Your task to perform on an android device: Open calendar and show me the first week of next month Image 0: 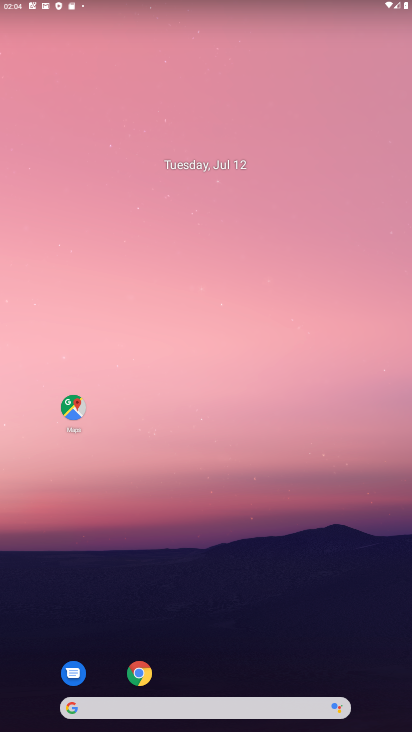
Step 0: press home button
Your task to perform on an android device: Open calendar and show me the first week of next month Image 1: 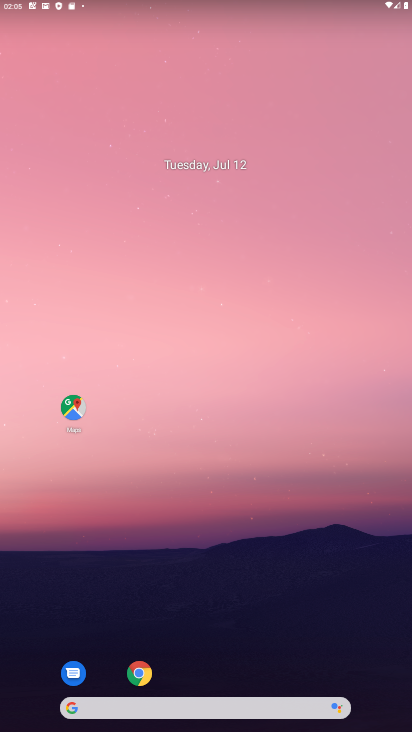
Step 1: drag from (294, 602) to (295, 58)
Your task to perform on an android device: Open calendar and show me the first week of next month Image 2: 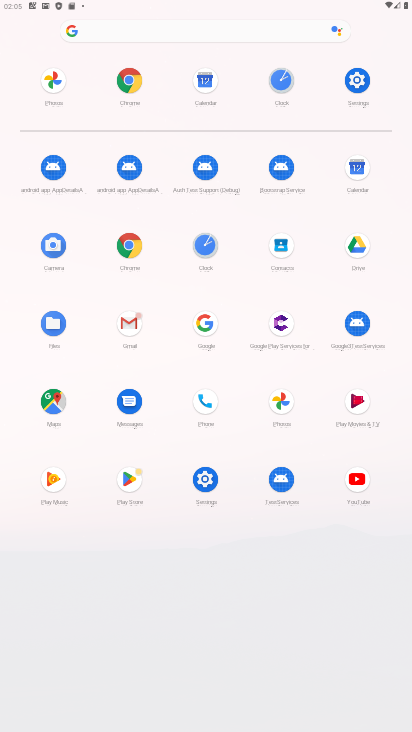
Step 2: click (358, 170)
Your task to perform on an android device: Open calendar and show me the first week of next month Image 3: 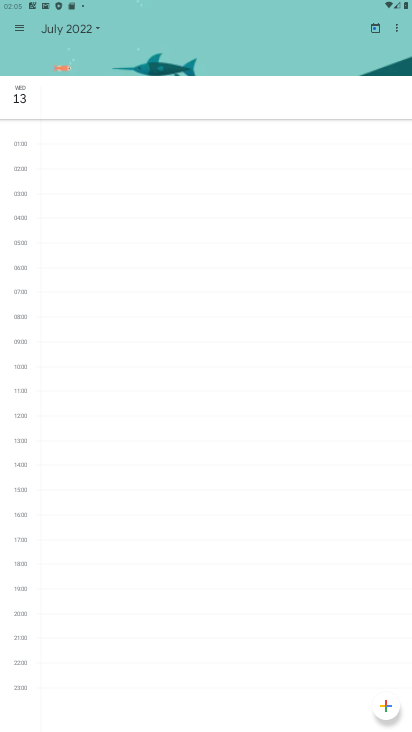
Step 3: click (67, 26)
Your task to perform on an android device: Open calendar and show me the first week of next month Image 4: 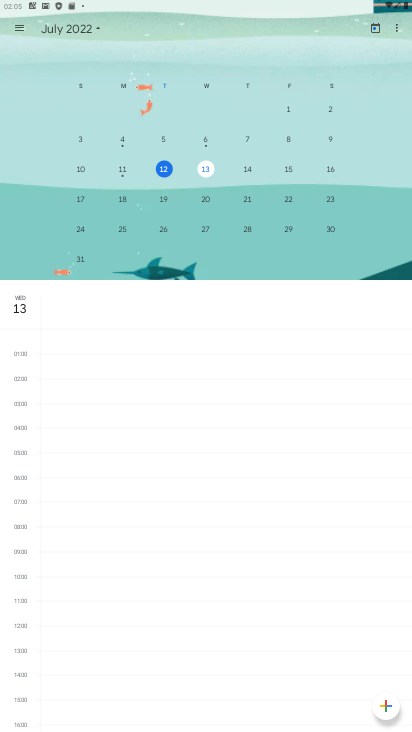
Step 4: drag from (329, 196) to (0, 185)
Your task to perform on an android device: Open calendar and show me the first week of next month Image 5: 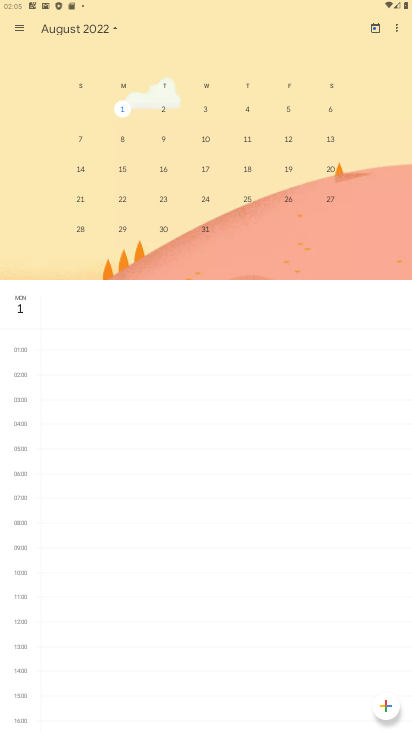
Step 5: click (120, 110)
Your task to perform on an android device: Open calendar and show me the first week of next month Image 6: 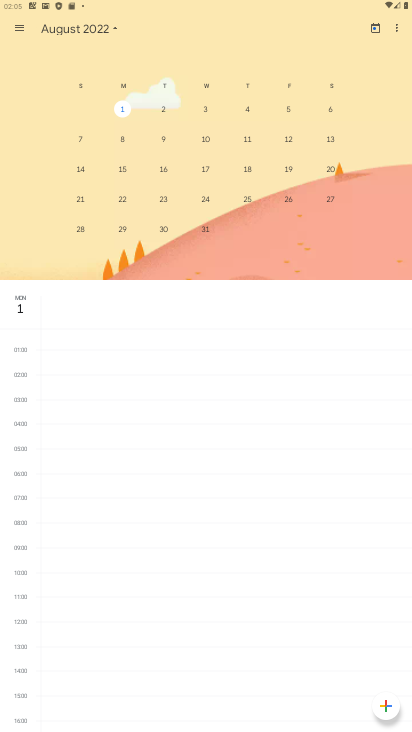
Step 6: click (22, 24)
Your task to perform on an android device: Open calendar and show me the first week of next month Image 7: 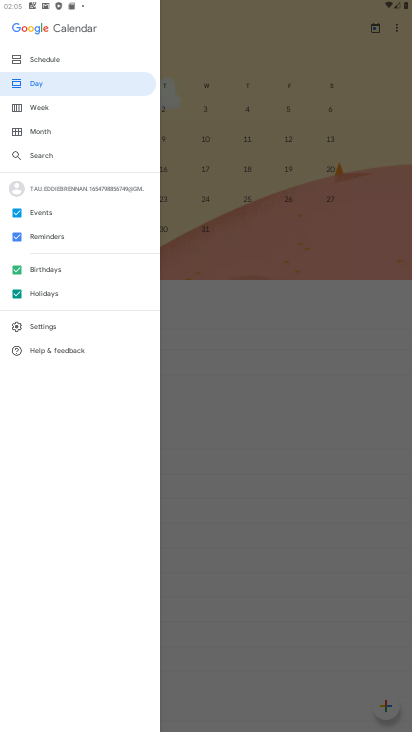
Step 7: click (46, 105)
Your task to perform on an android device: Open calendar and show me the first week of next month Image 8: 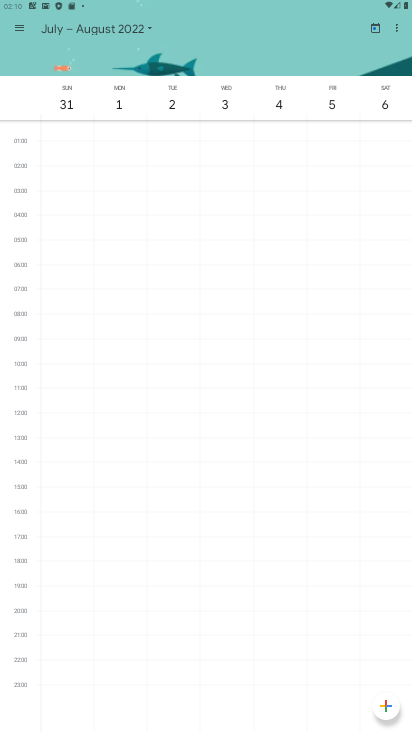
Step 8: press home button
Your task to perform on an android device: Open calendar and show me the first week of next month Image 9: 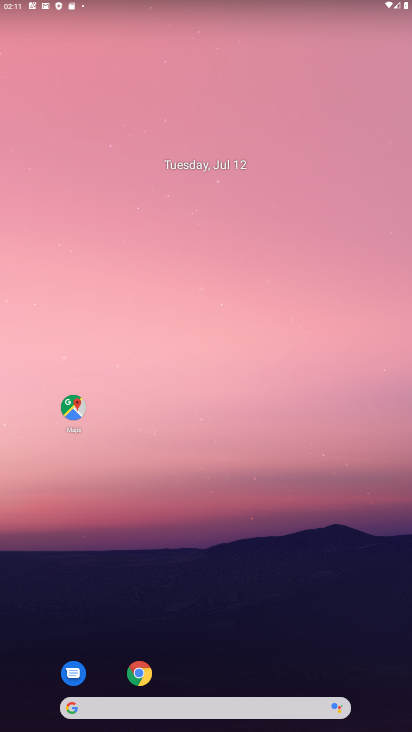
Step 9: press home button
Your task to perform on an android device: Open calendar and show me the first week of next month Image 10: 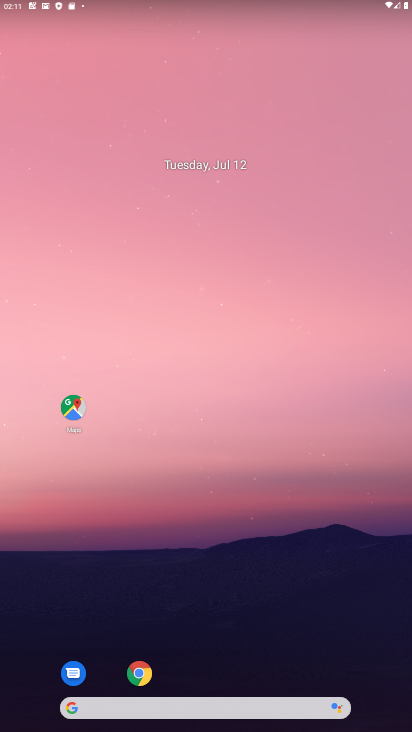
Step 10: drag from (257, 608) to (230, 0)
Your task to perform on an android device: Open calendar and show me the first week of next month Image 11: 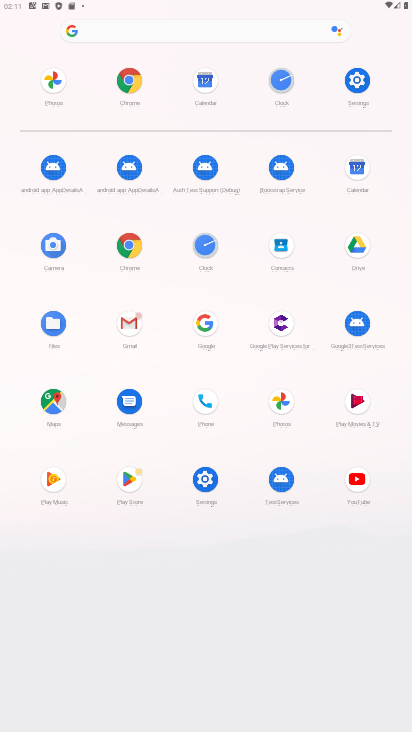
Step 11: click (357, 171)
Your task to perform on an android device: Open calendar and show me the first week of next month Image 12: 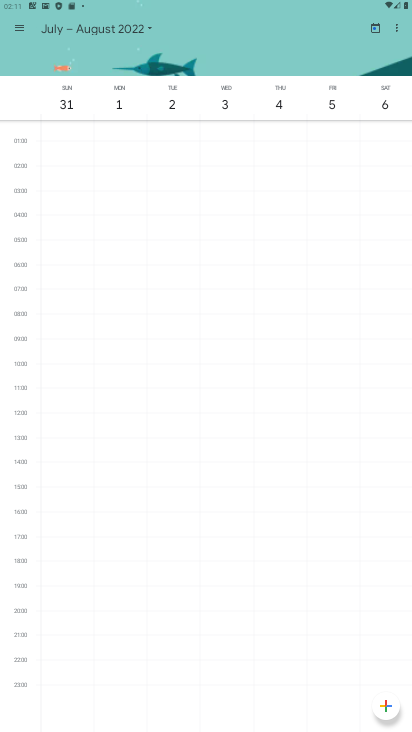
Step 12: task complete